Your task to perform on an android device: Go to wifi settings Image 0: 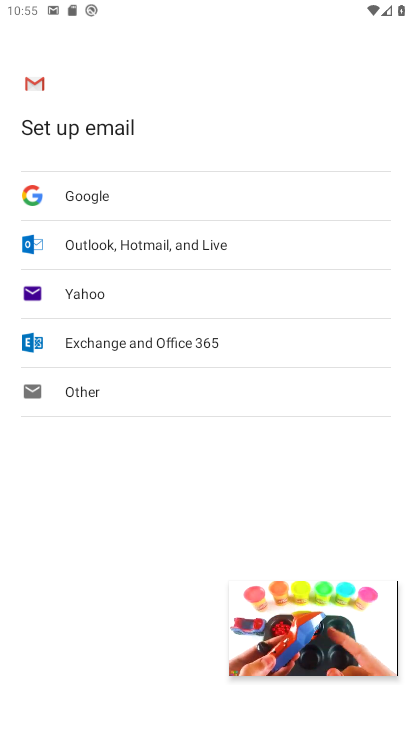
Step 0: click (345, 625)
Your task to perform on an android device: Go to wifi settings Image 1: 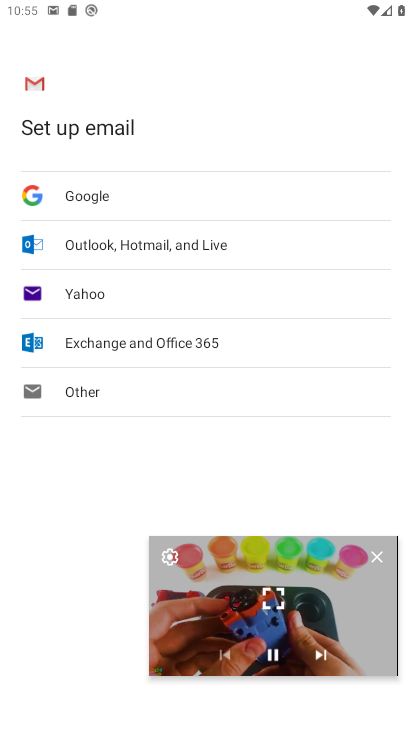
Step 1: click (377, 557)
Your task to perform on an android device: Go to wifi settings Image 2: 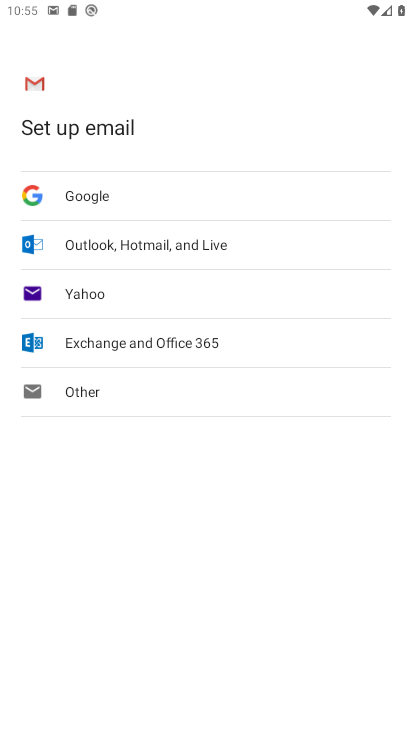
Step 2: press home button
Your task to perform on an android device: Go to wifi settings Image 3: 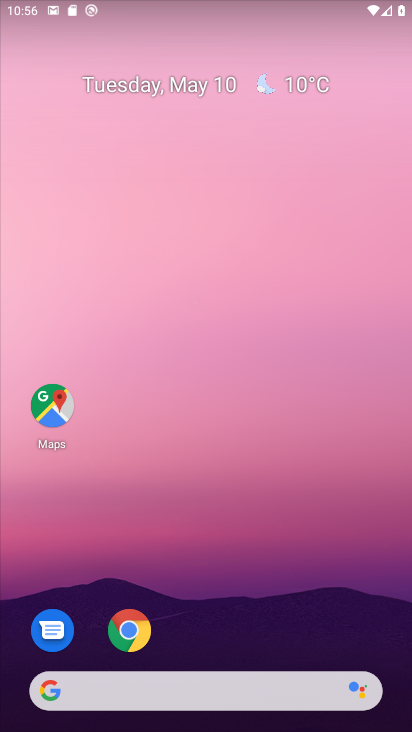
Step 3: drag from (306, 604) to (301, 84)
Your task to perform on an android device: Go to wifi settings Image 4: 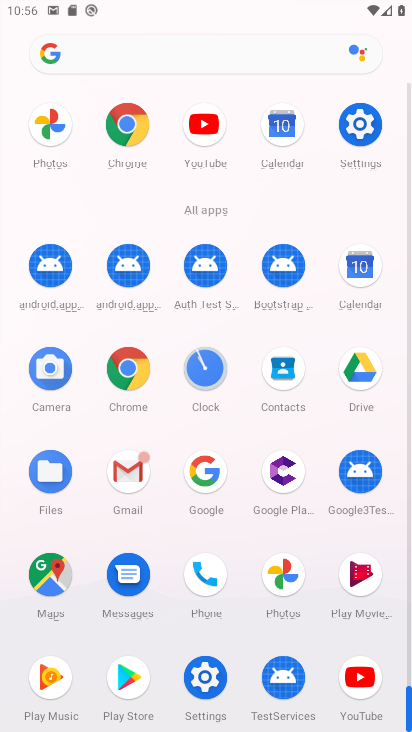
Step 4: click (348, 131)
Your task to perform on an android device: Go to wifi settings Image 5: 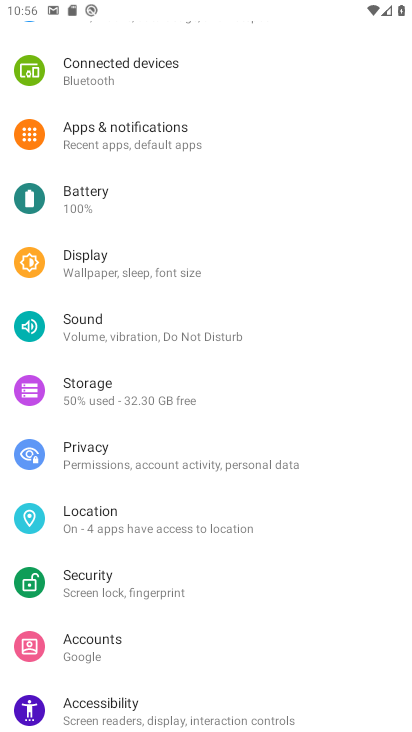
Step 5: drag from (215, 109) to (181, 421)
Your task to perform on an android device: Go to wifi settings Image 6: 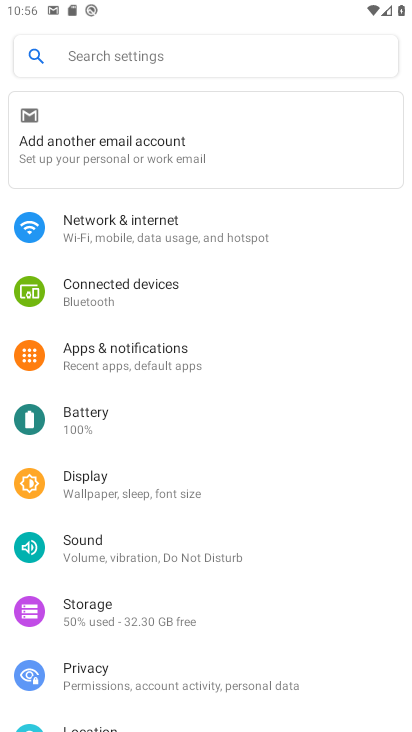
Step 6: click (187, 226)
Your task to perform on an android device: Go to wifi settings Image 7: 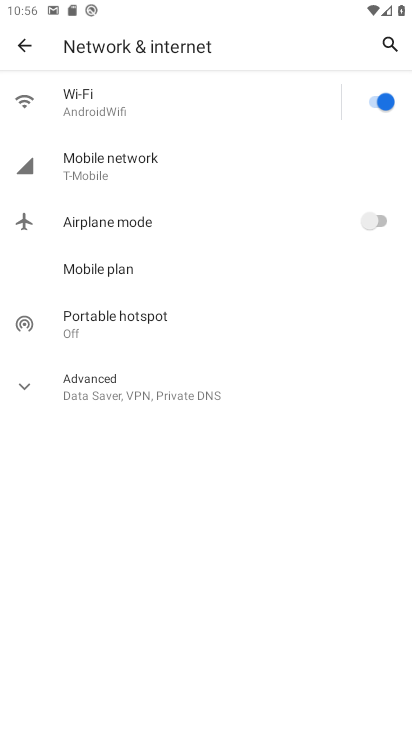
Step 7: click (112, 102)
Your task to perform on an android device: Go to wifi settings Image 8: 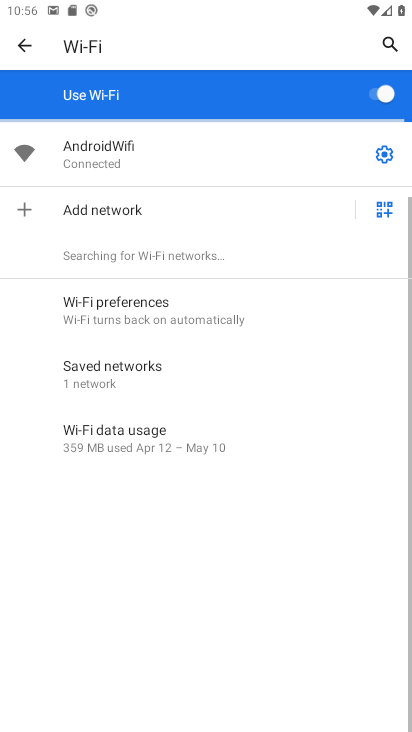
Step 8: task complete